Your task to perform on an android device: toggle wifi Image 0: 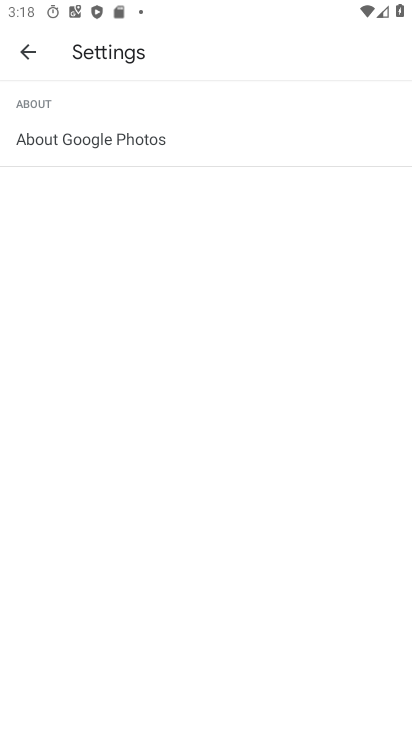
Step 0: press home button
Your task to perform on an android device: toggle wifi Image 1: 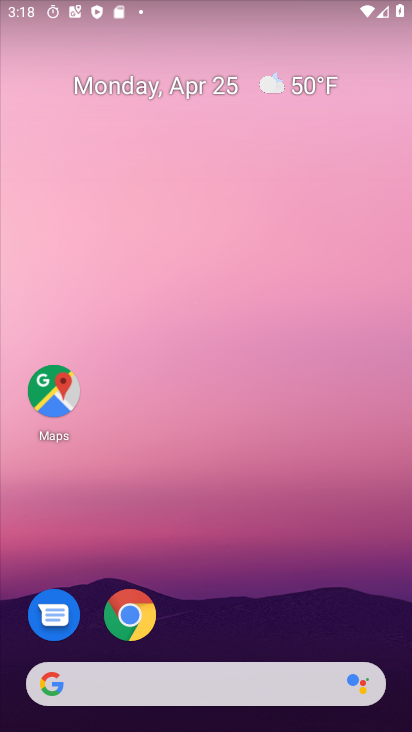
Step 1: drag from (213, 724) to (198, 152)
Your task to perform on an android device: toggle wifi Image 2: 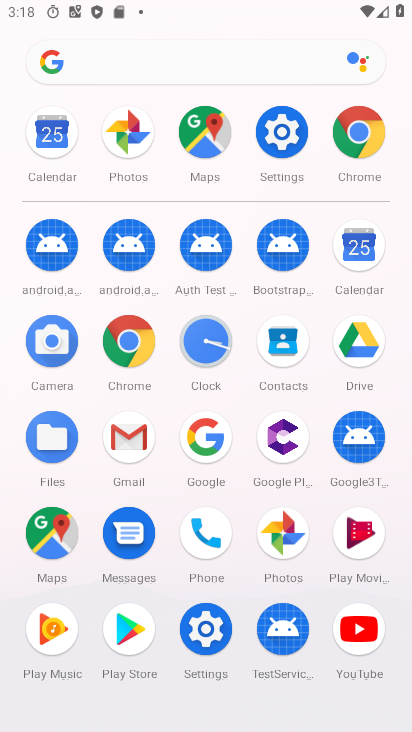
Step 2: click (279, 128)
Your task to perform on an android device: toggle wifi Image 3: 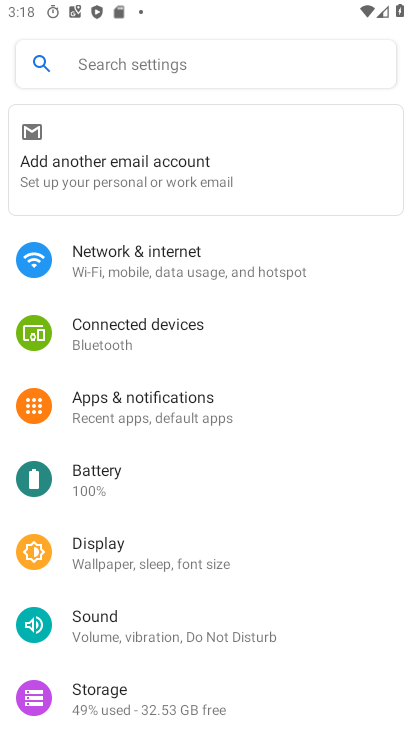
Step 3: click (135, 263)
Your task to perform on an android device: toggle wifi Image 4: 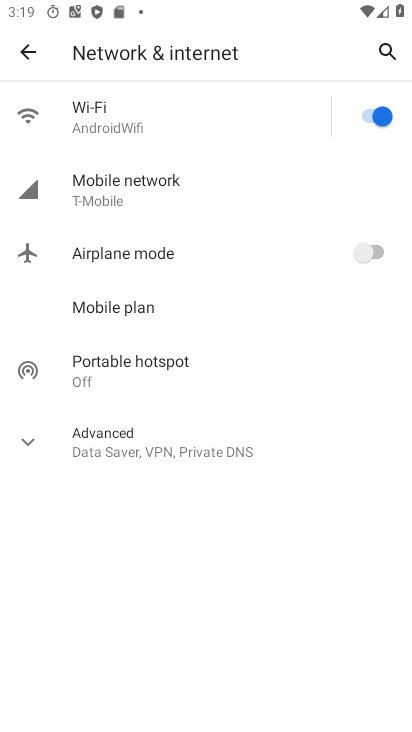
Step 4: click (375, 117)
Your task to perform on an android device: toggle wifi Image 5: 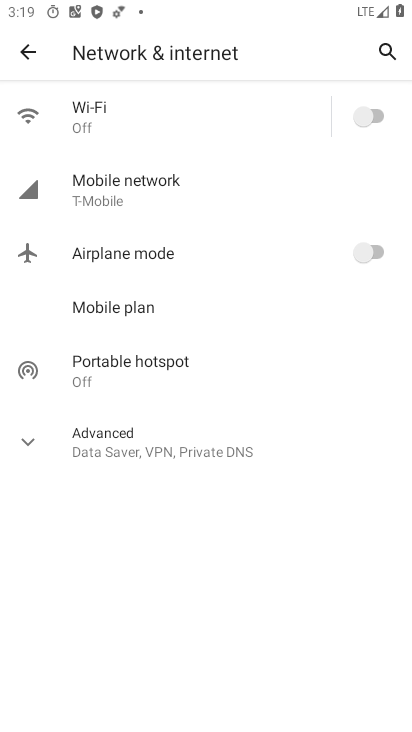
Step 5: task complete